Your task to perform on an android device: Toggle the flashlight Image 0: 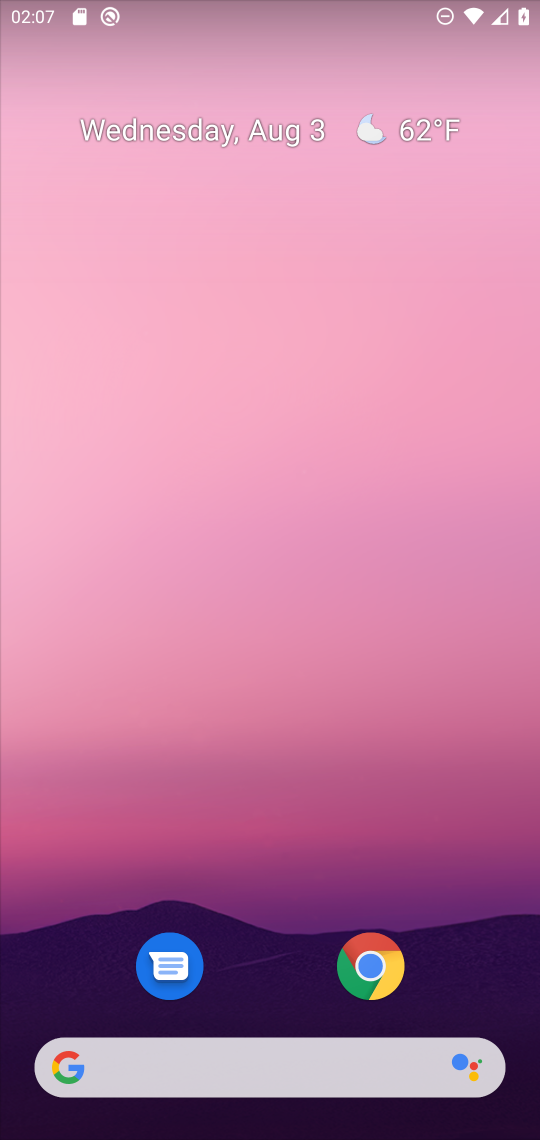
Step 0: drag from (259, 934) to (227, 469)
Your task to perform on an android device: Toggle the flashlight Image 1: 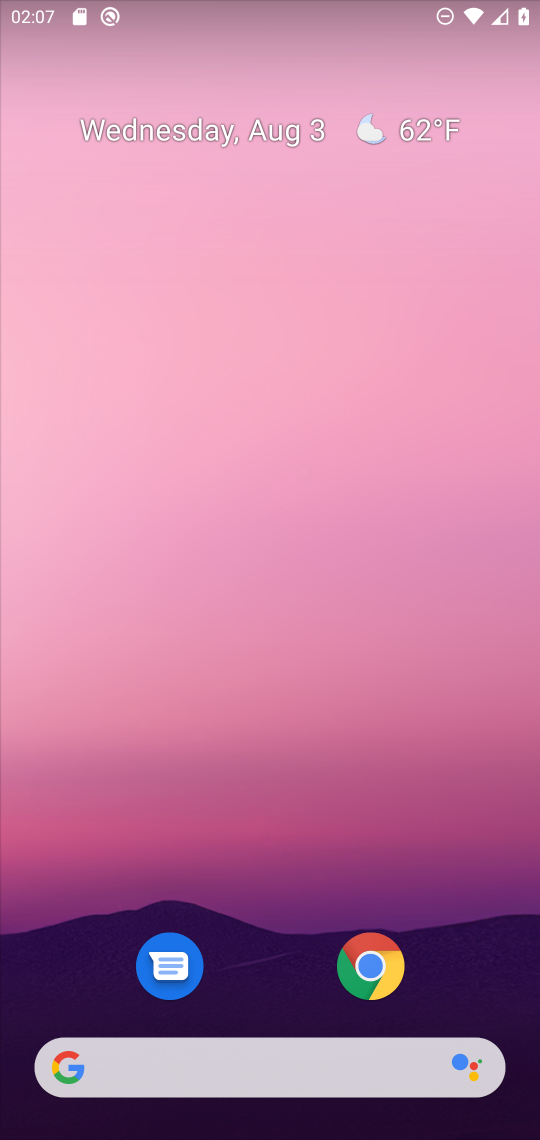
Step 1: drag from (284, 986) to (233, 393)
Your task to perform on an android device: Toggle the flashlight Image 2: 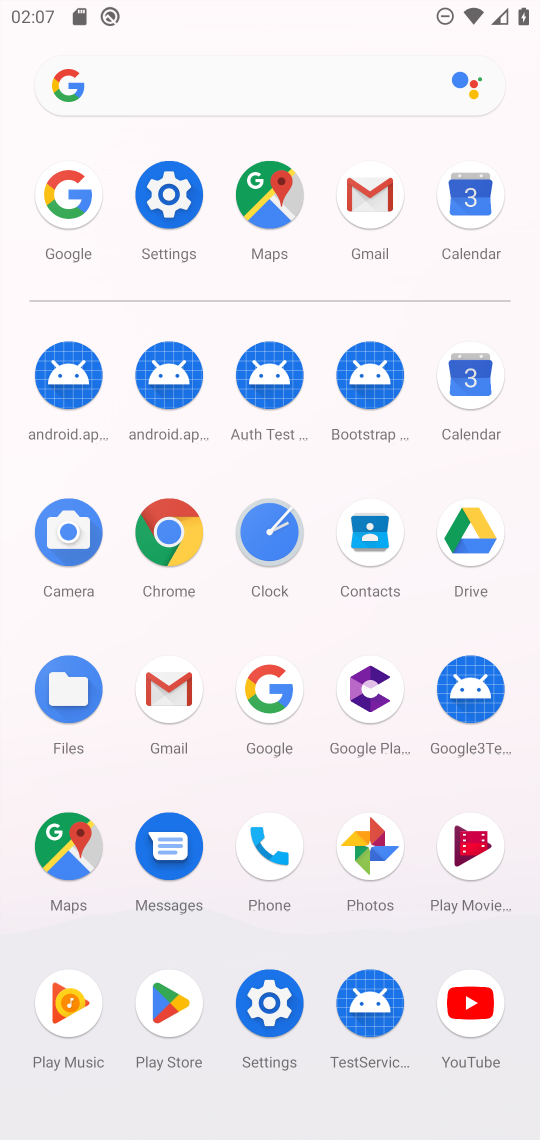
Step 2: click (191, 213)
Your task to perform on an android device: Toggle the flashlight Image 3: 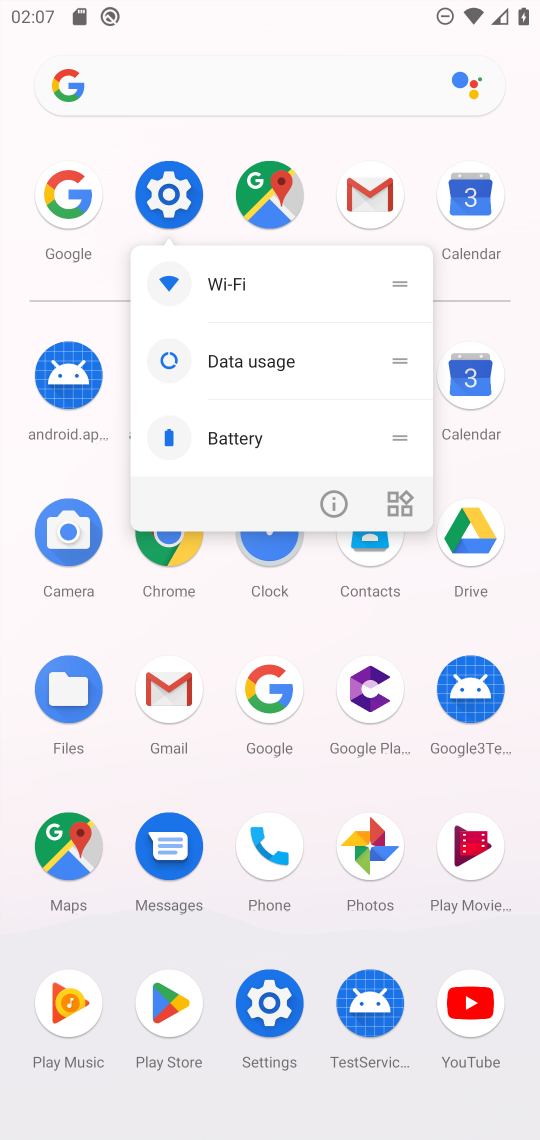
Step 3: click (180, 217)
Your task to perform on an android device: Toggle the flashlight Image 4: 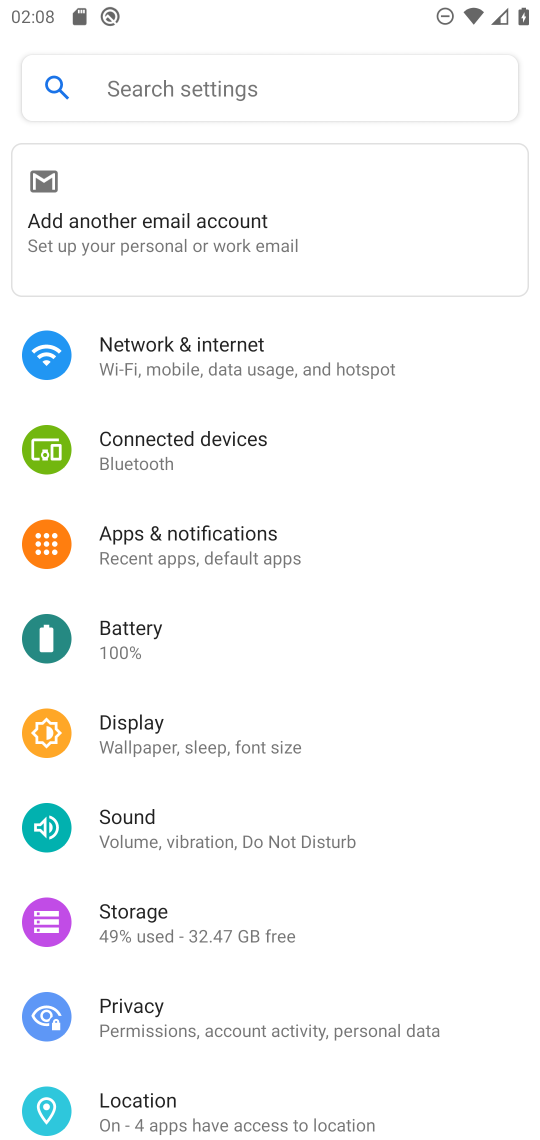
Step 4: task complete